Your task to perform on an android device: change the upload size in google photos Image 0: 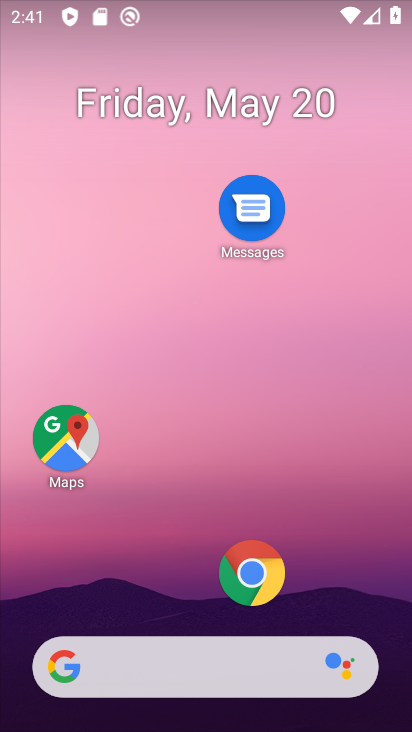
Step 0: drag from (160, 613) to (239, 0)
Your task to perform on an android device: change the upload size in google photos Image 1: 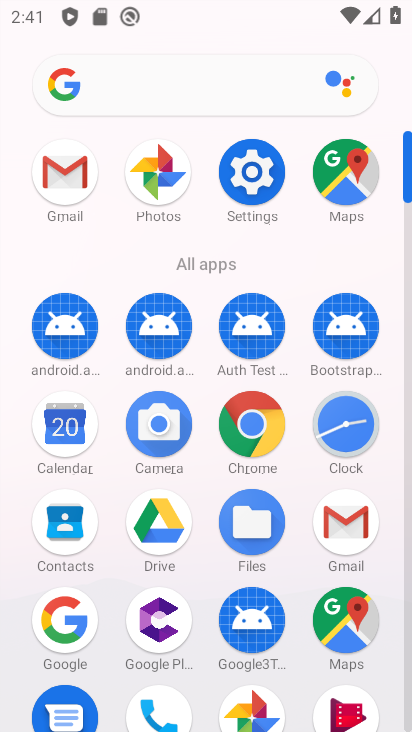
Step 1: click (143, 190)
Your task to perform on an android device: change the upload size in google photos Image 2: 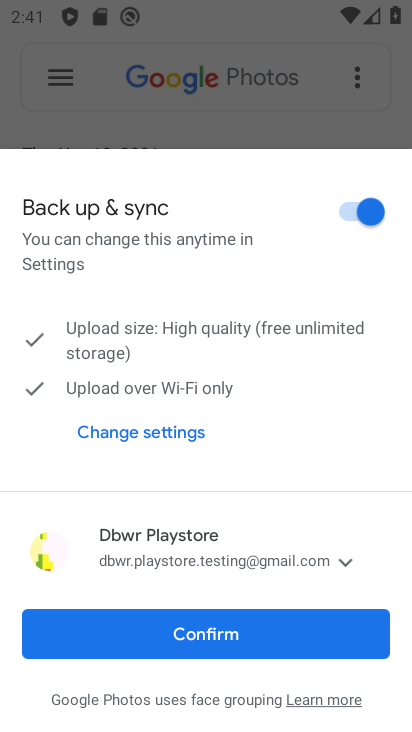
Step 2: click (243, 615)
Your task to perform on an android device: change the upload size in google photos Image 3: 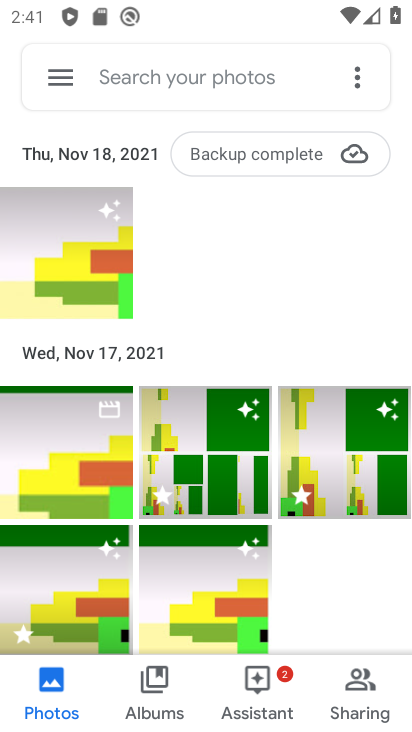
Step 3: click (74, 77)
Your task to perform on an android device: change the upload size in google photos Image 4: 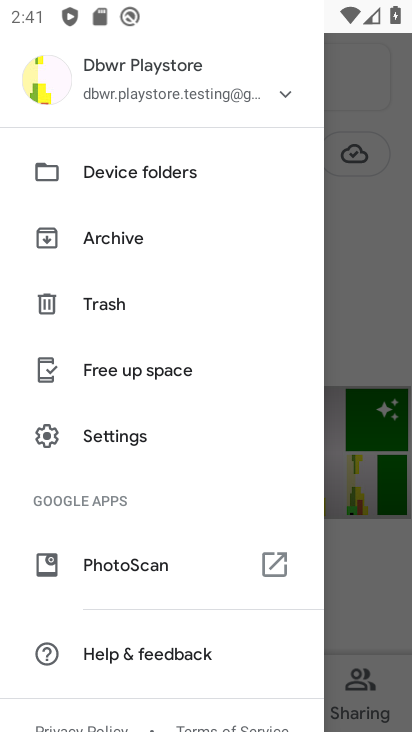
Step 4: click (123, 423)
Your task to perform on an android device: change the upload size in google photos Image 5: 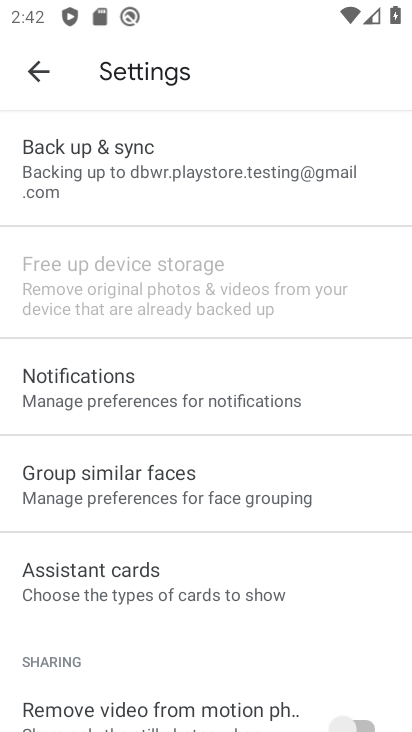
Step 5: click (118, 141)
Your task to perform on an android device: change the upload size in google photos Image 6: 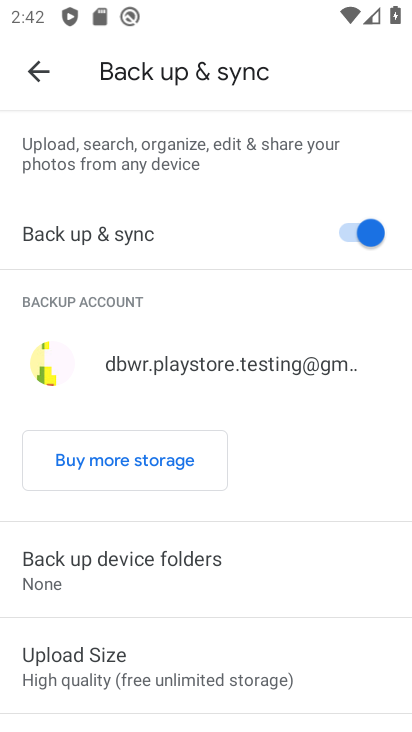
Step 6: click (109, 162)
Your task to perform on an android device: change the upload size in google photos Image 7: 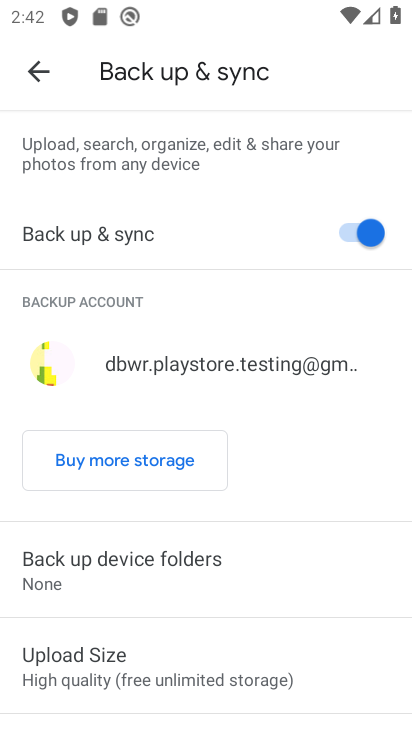
Step 7: click (155, 661)
Your task to perform on an android device: change the upload size in google photos Image 8: 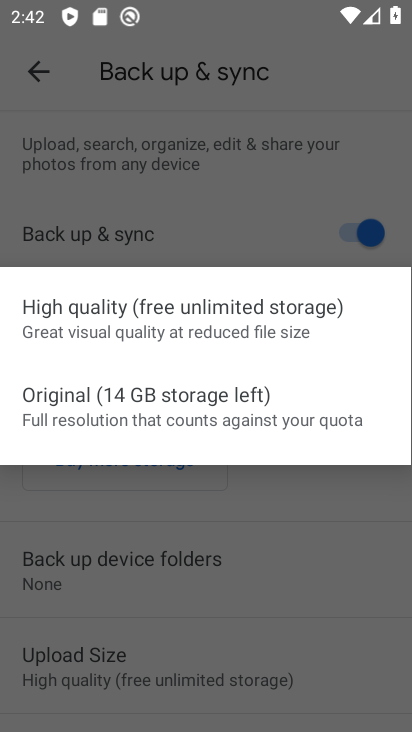
Step 8: click (130, 406)
Your task to perform on an android device: change the upload size in google photos Image 9: 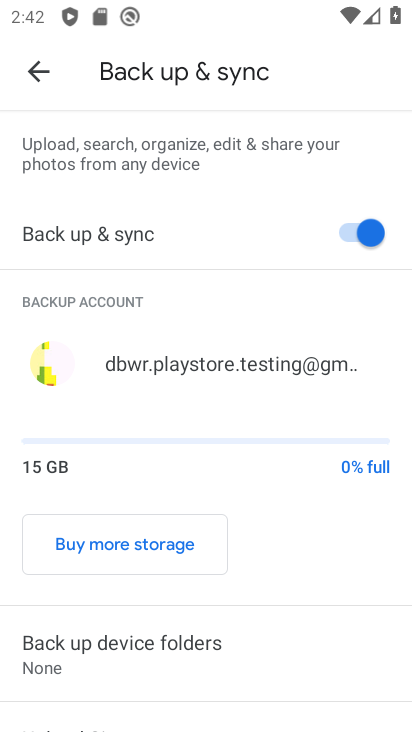
Step 9: task complete